Your task to perform on an android device: Open Youtube and go to the subscriptions tab Image 0: 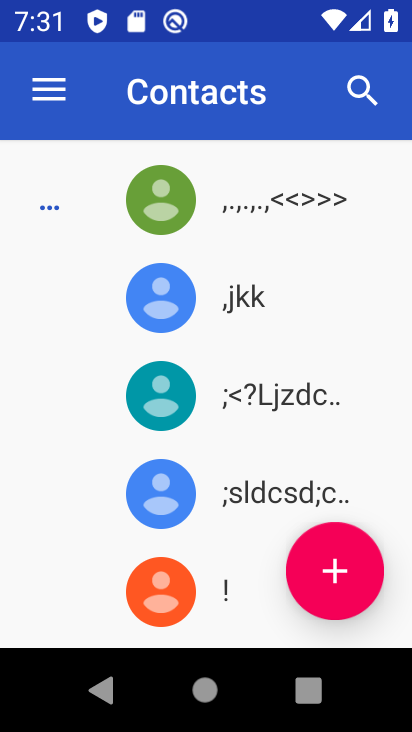
Step 0: press home button
Your task to perform on an android device: Open Youtube and go to the subscriptions tab Image 1: 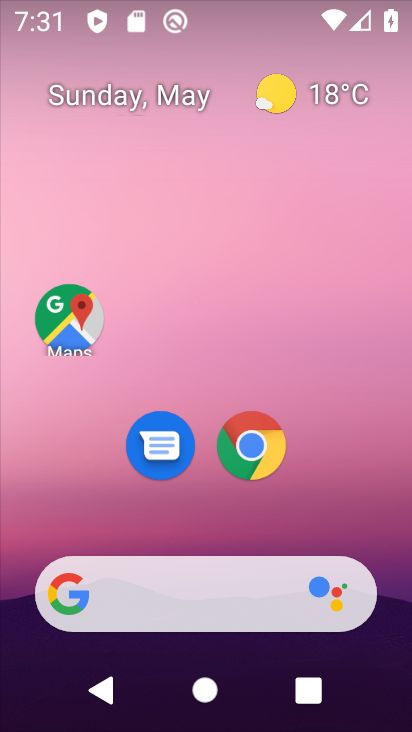
Step 1: drag from (213, 642) to (172, 199)
Your task to perform on an android device: Open Youtube and go to the subscriptions tab Image 2: 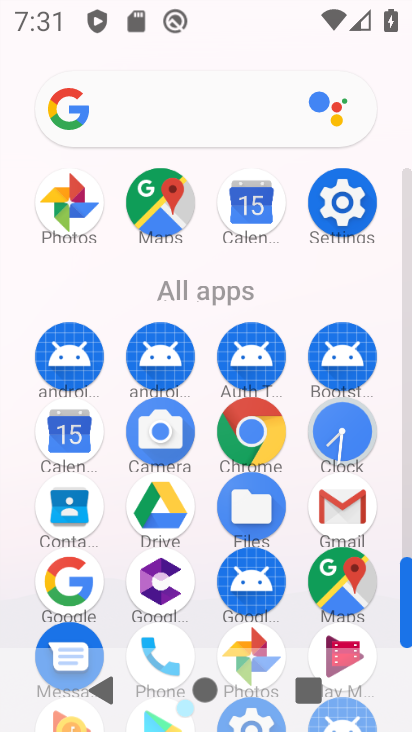
Step 2: drag from (296, 590) to (237, 132)
Your task to perform on an android device: Open Youtube and go to the subscriptions tab Image 3: 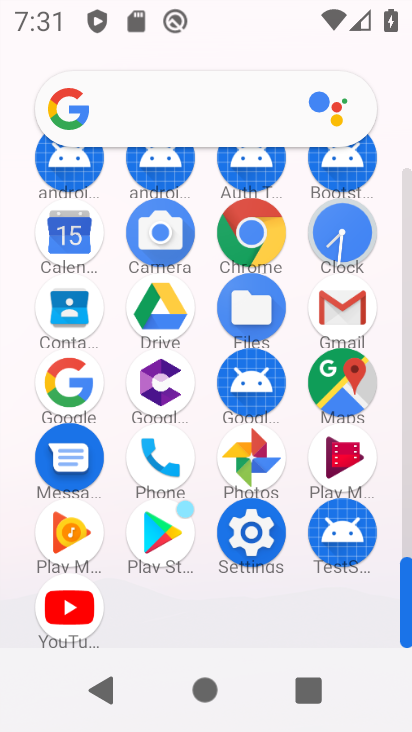
Step 3: click (62, 618)
Your task to perform on an android device: Open Youtube and go to the subscriptions tab Image 4: 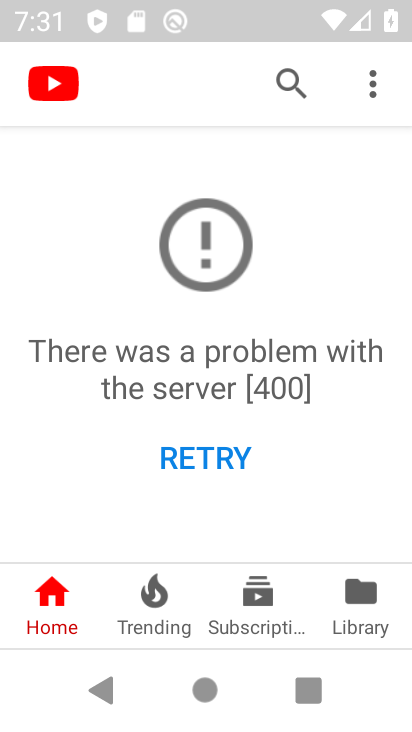
Step 4: click (270, 597)
Your task to perform on an android device: Open Youtube and go to the subscriptions tab Image 5: 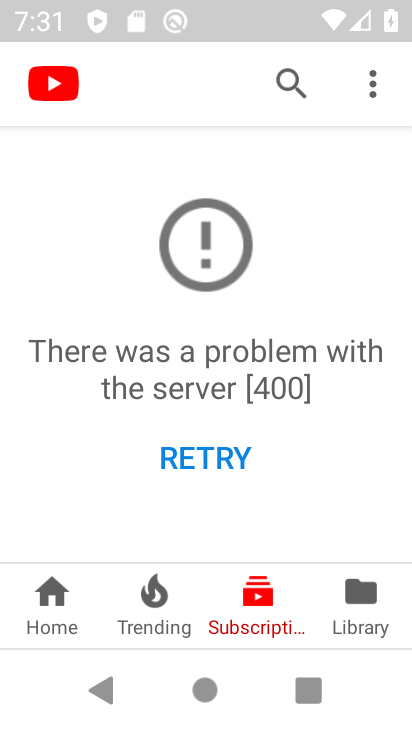
Step 5: task complete